Your task to perform on an android device: empty trash in the gmail app Image 0: 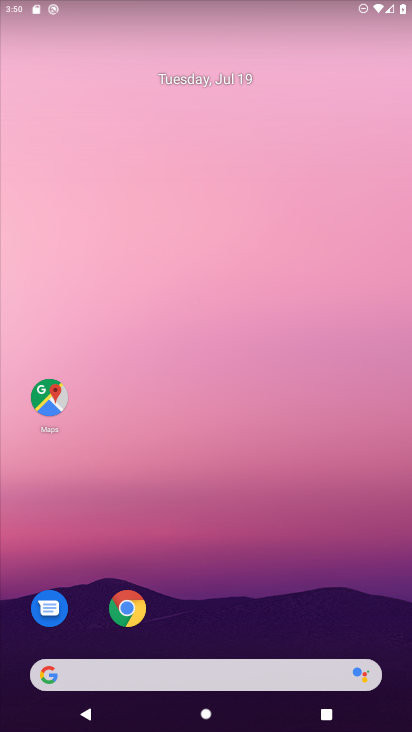
Step 0: drag from (239, 538) to (230, 78)
Your task to perform on an android device: empty trash in the gmail app Image 1: 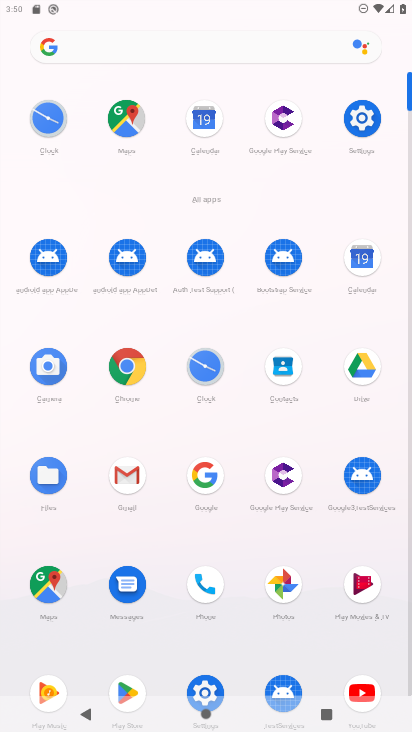
Step 1: click (129, 473)
Your task to perform on an android device: empty trash in the gmail app Image 2: 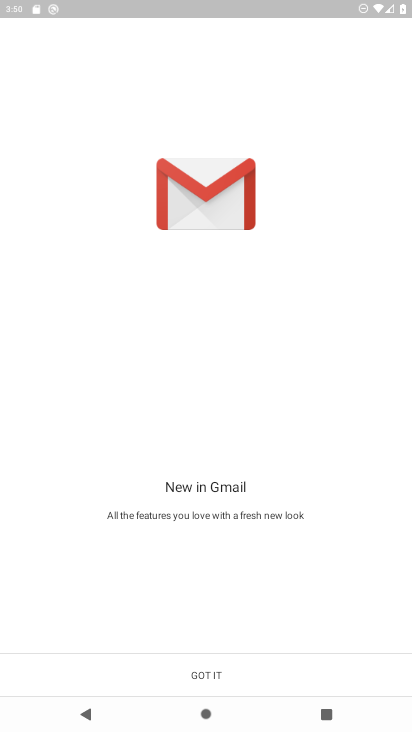
Step 2: click (218, 668)
Your task to perform on an android device: empty trash in the gmail app Image 3: 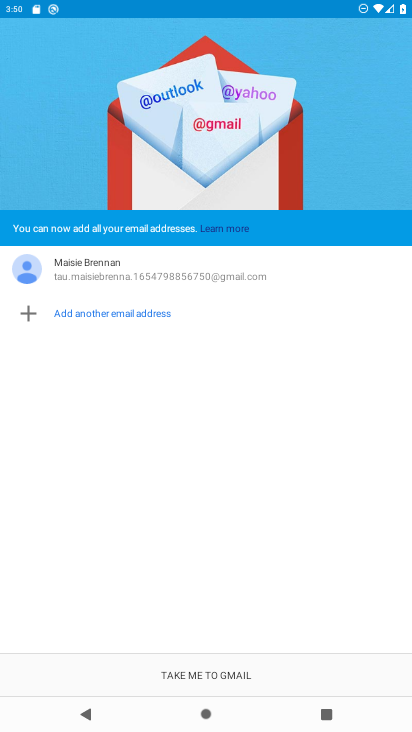
Step 3: click (253, 679)
Your task to perform on an android device: empty trash in the gmail app Image 4: 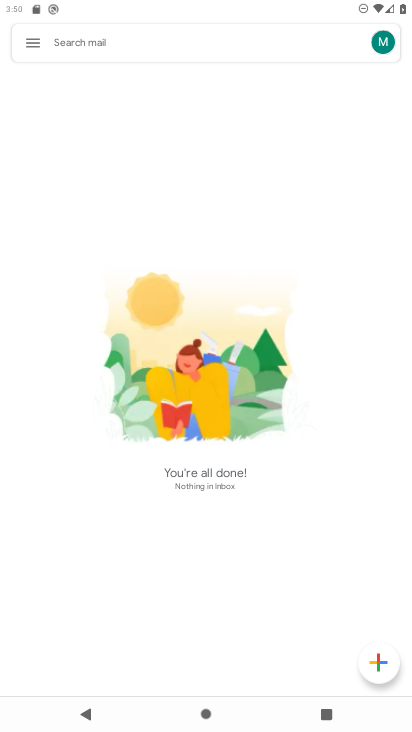
Step 4: click (29, 44)
Your task to perform on an android device: empty trash in the gmail app Image 5: 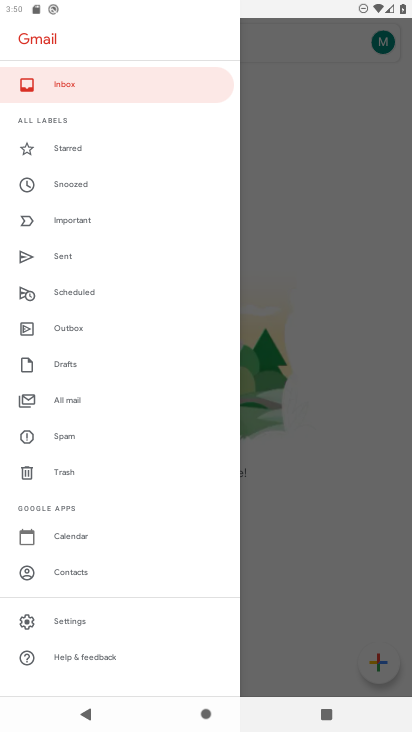
Step 5: click (72, 467)
Your task to perform on an android device: empty trash in the gmail app Image 6: 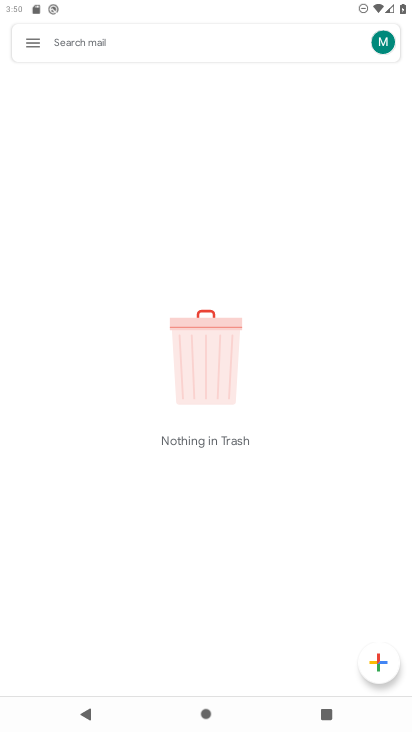
Step 6: task complete